Your task to perform on an android device: See recent photos Image 0: 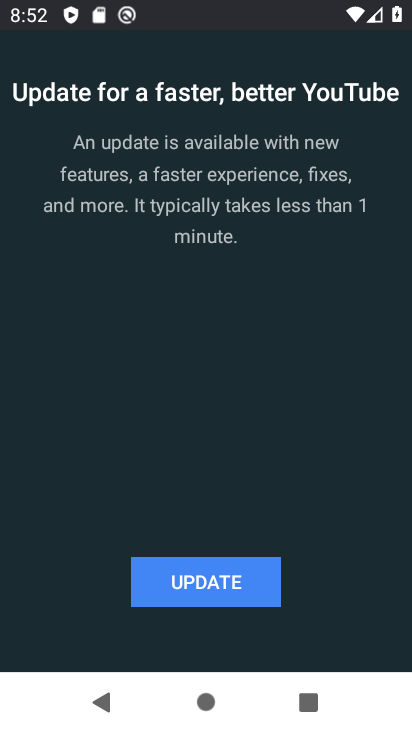
Step 0: press home button
Your task to perform on an android device: See recent photos Image 1: 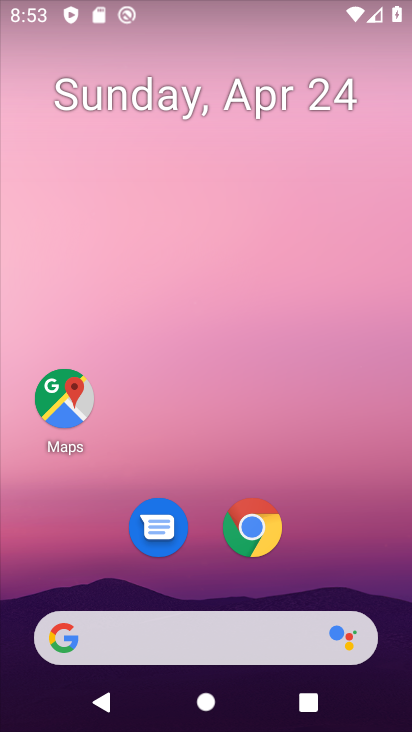
Step 1: drag from (312, 537) to (263, 82)
Your task to perform on an android device: See recent photos Image 2: 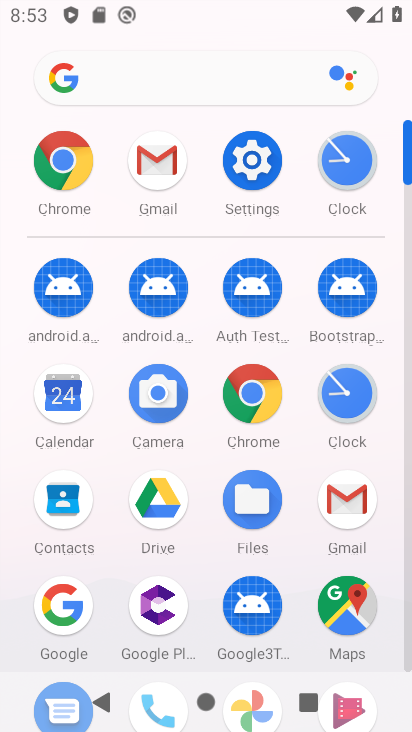
Step 2: drag from (301, 641) to (296, 268)
Your task to perform on an android device: See recent photos Image 3: 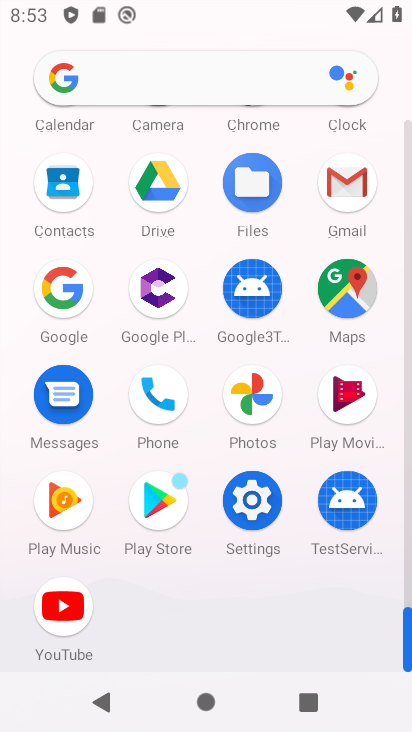
Step 3: click (259, 387)
Your task to perform on an android device: See recent photos Image 4: 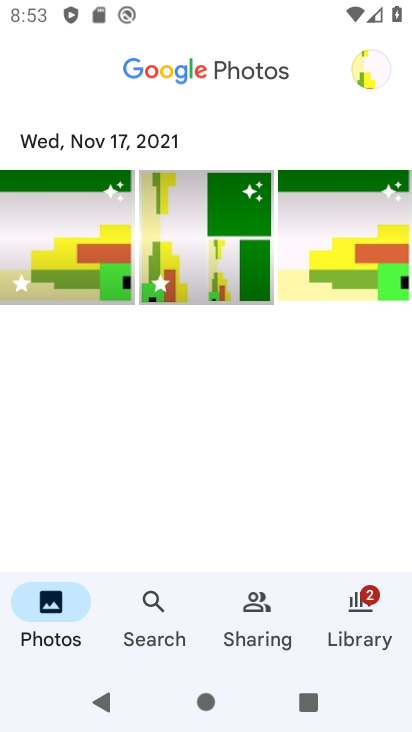
Step 4: click (157, 618)
Your task to perform on an android device: See recent photos Image 5: 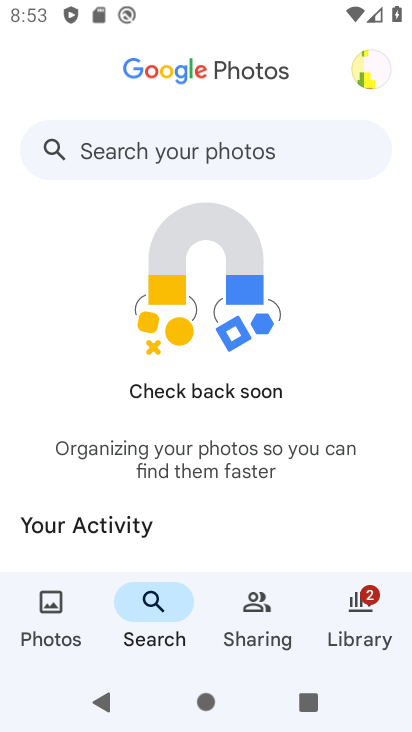
Step 5: drag from (237, 472) to (235, 118)
Your task to perform on an android device: See recent photos Image 6: 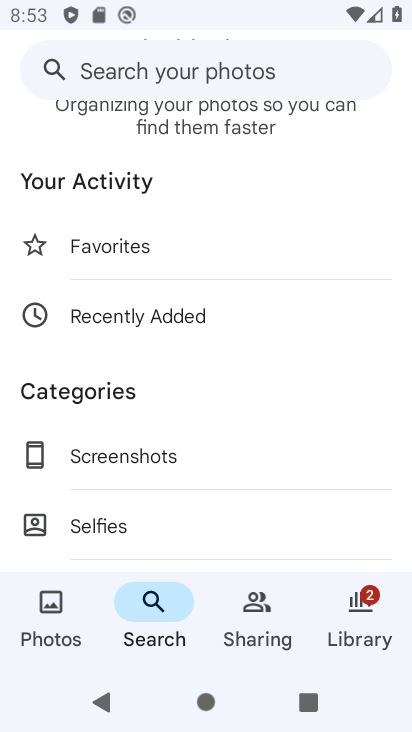
Step 6: click (153, 321)
Your task to perform on an android device: See recent photos Image 7: 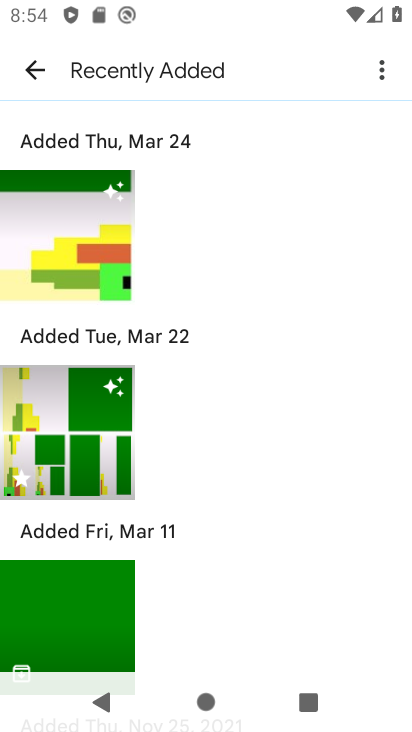
Step 7: task complete